Your task to perform on an android device: open app "The Home Depot" (install if not already installed) and enter user name: "taproot@icloud.com" and password: "executions" Image 0: 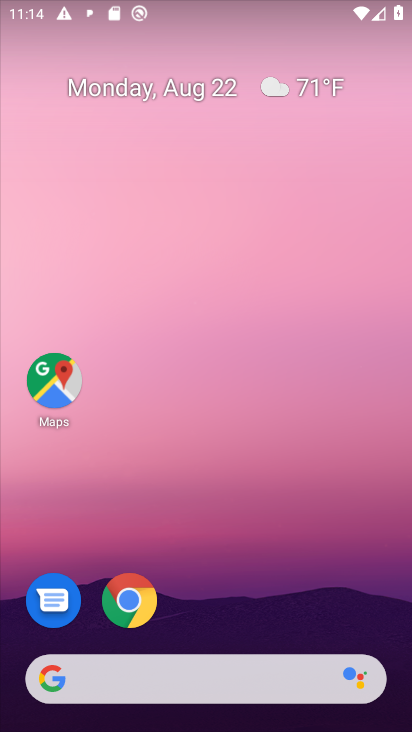
Step 0: drag from (244, 583) to (244, 148)
Your task to perform on an android device: open app "The Home Depot" (install if not already installed) and enter user name: "taproot@icloud.com" and password: "executions" Image 1: 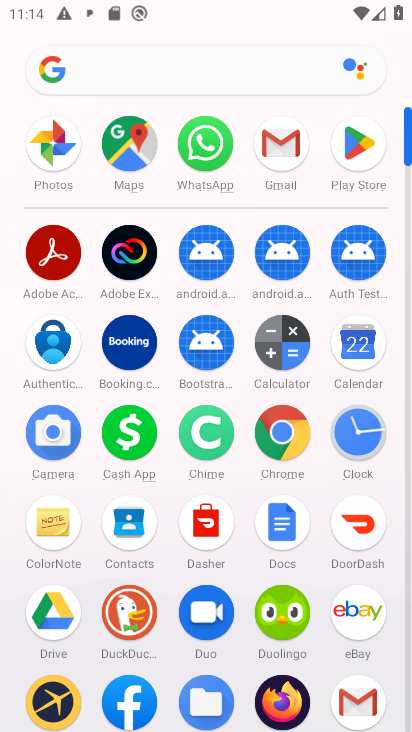
Step 1: click (349, 142)
Your task to perform on an android device: open app "The Home Depot" (install if not already installed) and enter user name: "taproot@icloud.com" and password: "executions" Image 2: 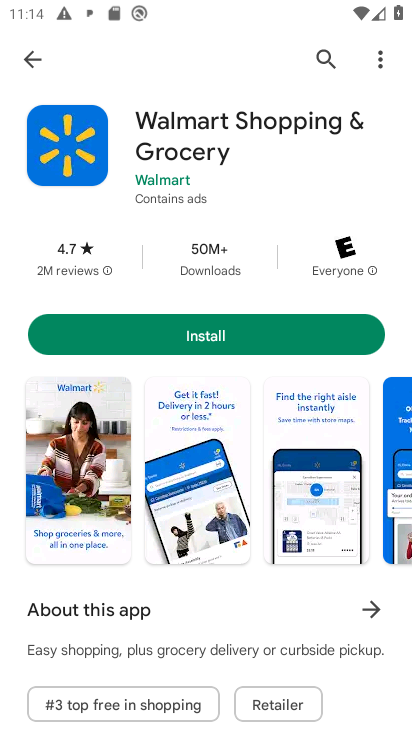
Step 2: click (325, 54)
Your task to perform on an android device: open app "The Home Depot" (install if not already installed) and enter user name: "taproot@icloud.com" and password: "executions" Image 3: 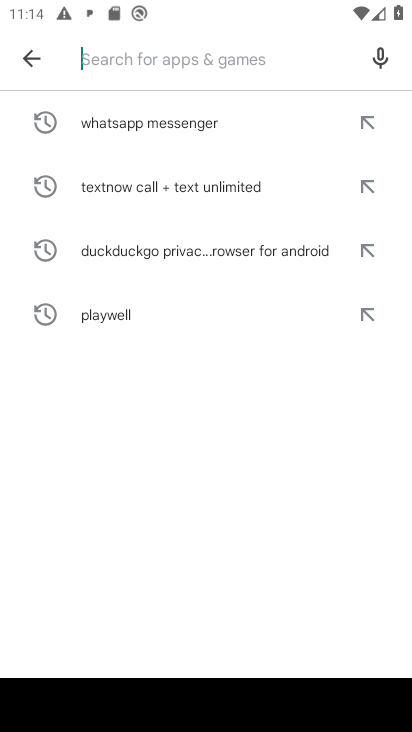
Step 3: type "The Home Depot"
Your task to perform on an android device: open app "The Home Depot" (install if not already installed) and enter user name: "taproot@icloud.com" and password: "executions" Image 4: 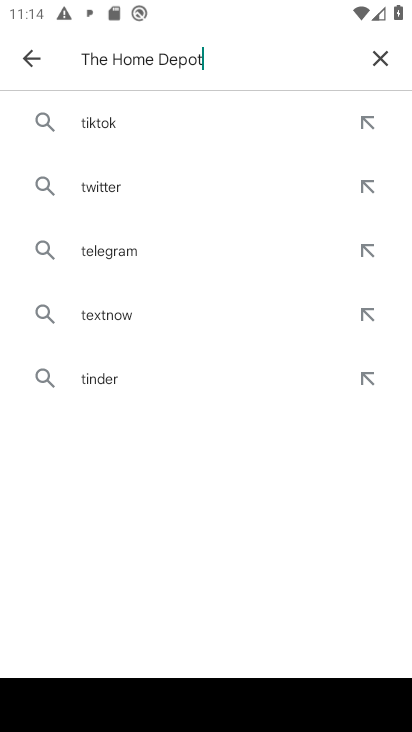
Step 4: type ""
Your task to perform on an android device: open app "The Home Depot" (install if not already installed) and enter user name: "taproot@icloud.com" and password: "executions" Image 5: 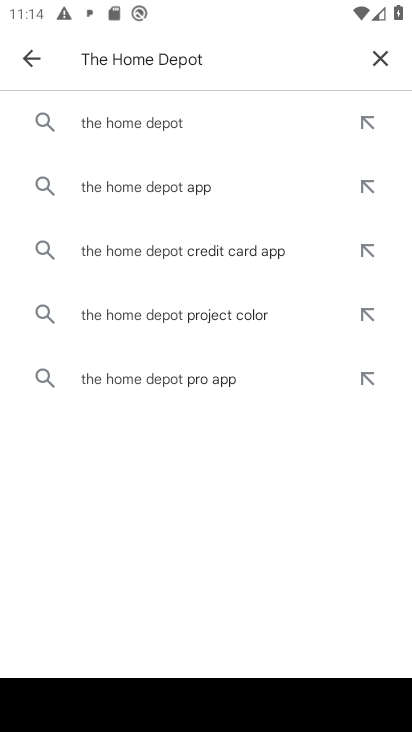
Step 5: click (157, 129)
Your task to perform on an android device: open app "The Home Depot" (install if not already installed) and enter user name: "taproot@icloud.com" and password: "executions" Image 6: 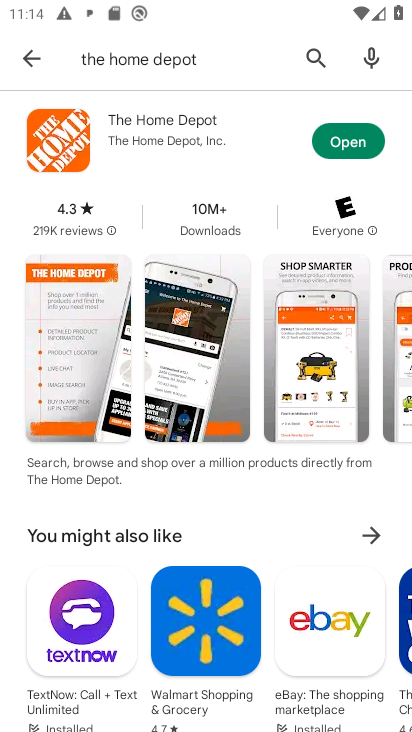
Step 6: click (351, 147)
Your task to perform on an android device: open app "The Home Depot" (install if not already installed) and enter user name: "taproot@icloud.com" and password: "executions" Image 7: 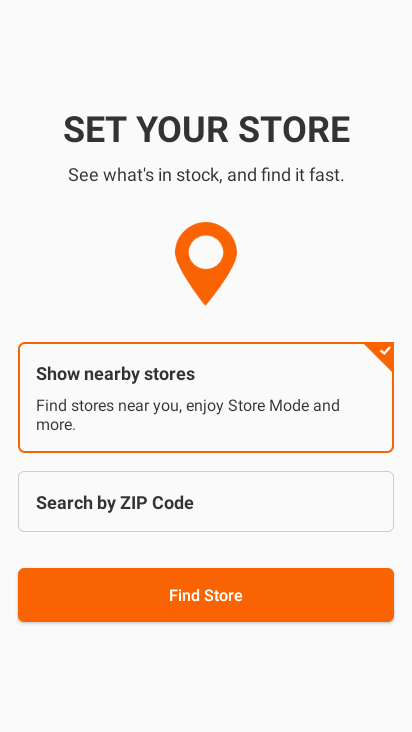
Step 7: task complete